Your task to perform on an android device: turn on notifications settings in the gmail app Image 0: 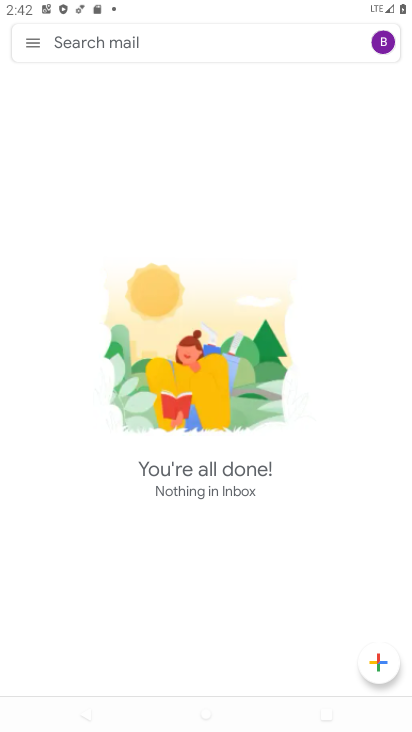
Step 0: click (33, 49)
Your task to perform on an android device: turn on notifications settings in the gmail app Image 1: 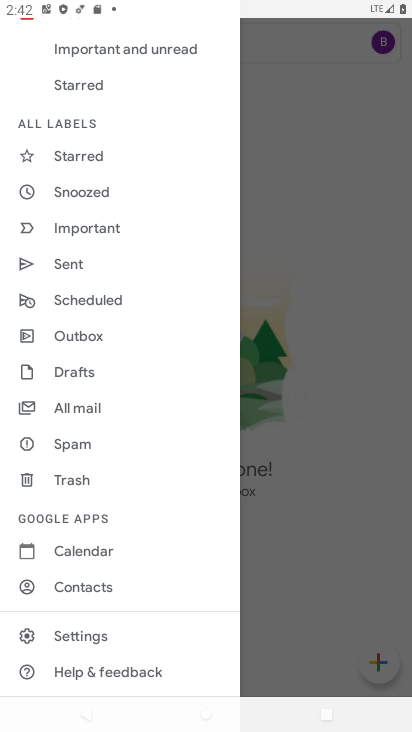
Step 1: click (84, 636)
Your task to perform on an android device: turn on notifications settings in the gmail app Image 2: 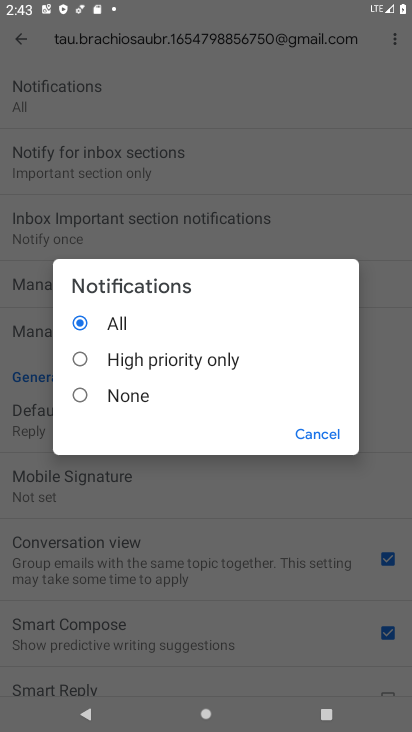
Step 2: task complete